Your task to perform on an android device: open app "Booking.com: Hotels and more" (install if not already installed) Image 0: 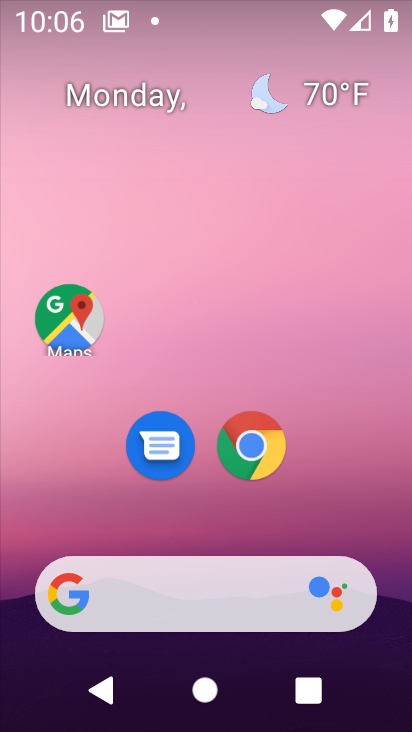
Step 0: drag from (216, 609) to (315, 154)
Your task to perform on an android device: open app "Booking.com: Hotels and more" (install if not already installed) Image 1: 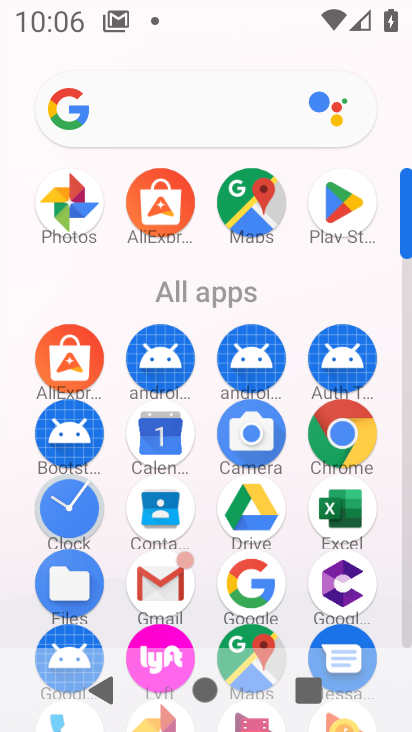
Step 1: click (349, 186)
Your task to perform on an android device: open app "Booking.com: Hotels and more" (install if not already installed) Image 2: 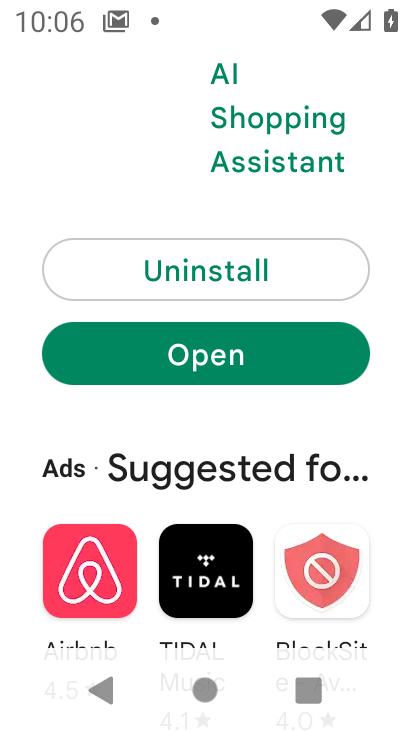
Step 2: drag from (166, 290) to (186, 723)
Your task to perform on an android device: open app "Booking.com: Hotels and more" (install if not already installed) Image 3: 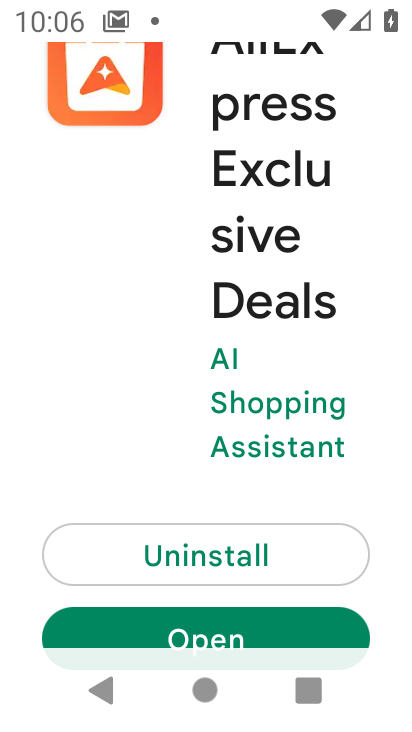
Step 3: drag from (110, 222) to (125, 723)
Your task to perform on an android device: open app "Booking.com: Hotels and more" (install if not already installed) Image 4: 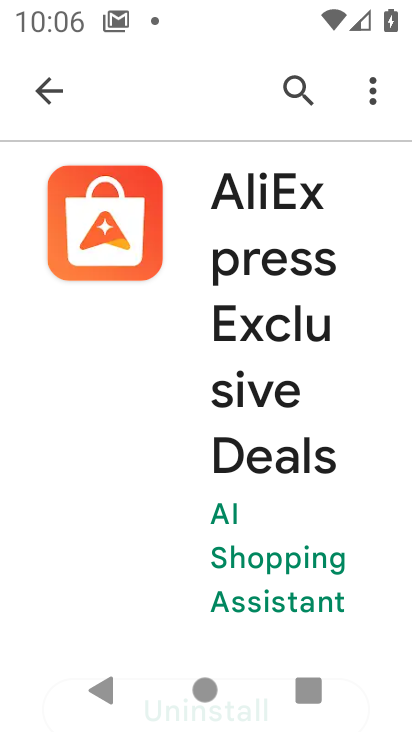
Step 4: click (55, 100)
Your task to perform on an android device: open app "Booking.com: Hotels and more" (install if not already installed) Image 5: 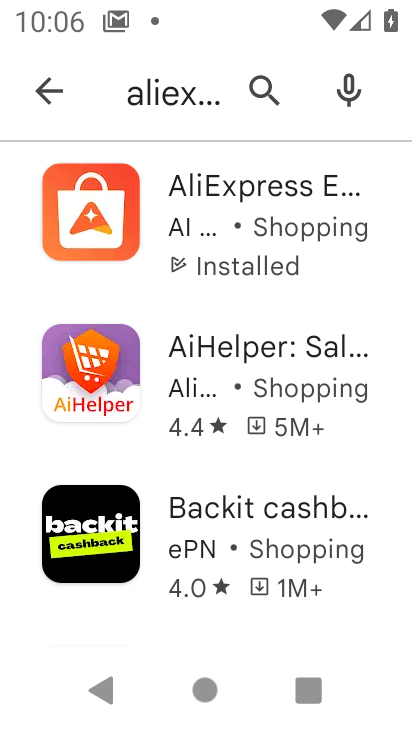
Step 5: click (53, 94)
Your task to perform on an android device: open app "Booking.com: Hotels and more" (install if not already installed) Image 6: 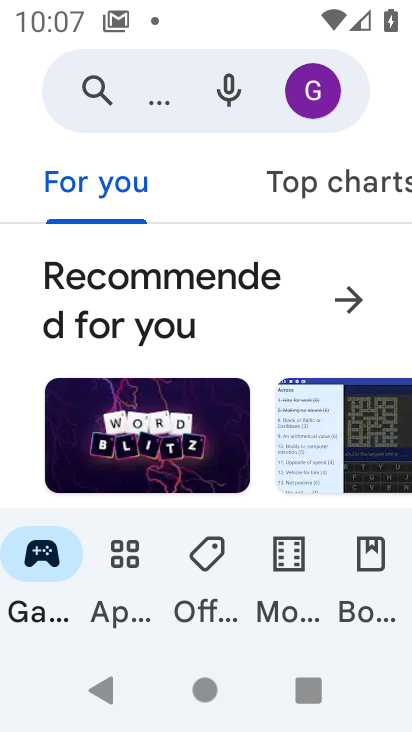
Step 6: click (80, 95)
Your task to perform on an android device: open app "Booking.com: Hotels and more" (install if not already installed) Image 7: 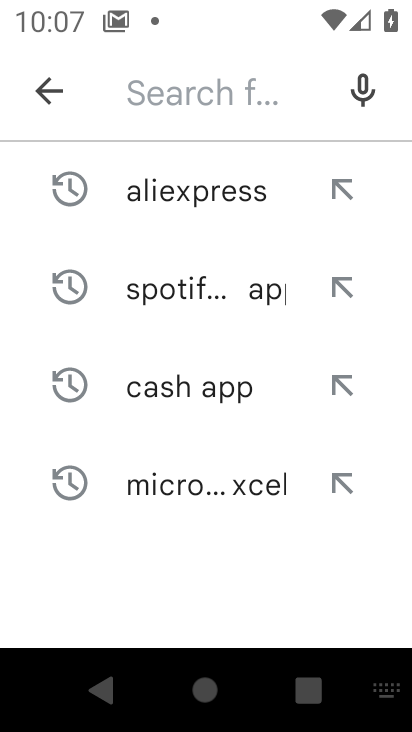
Step 7: type "Booking.com: Hotels and more"
Your task to perform on an android device: open app "Booking.com: Hotels and more" (install if not already installed) Image 8: 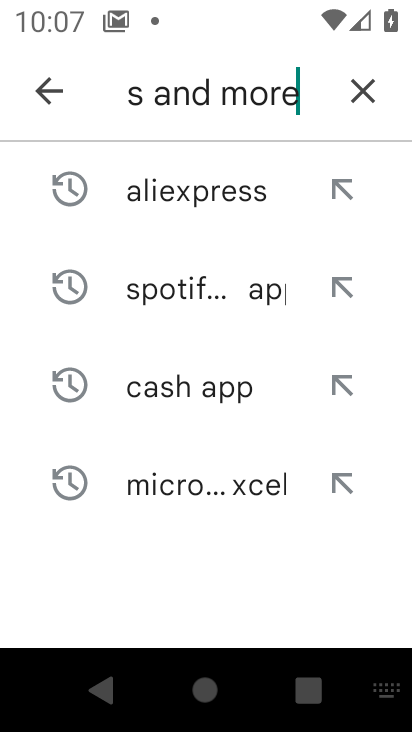
Step 8: type ""
Your task to perform on an android device: open app "Booking.com: Hotels and more" (install if not already installed) Image 9: 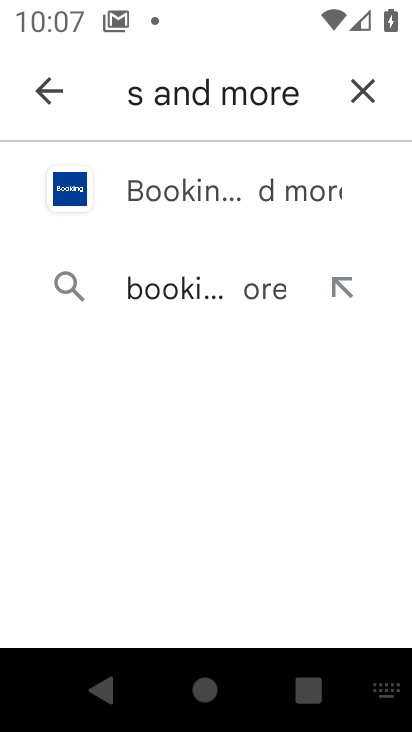
Step 9: click (212, 190)
Your task to perform on an android device: open app "Booking.com: Hotels and more" (install if not already installed) Image 10: 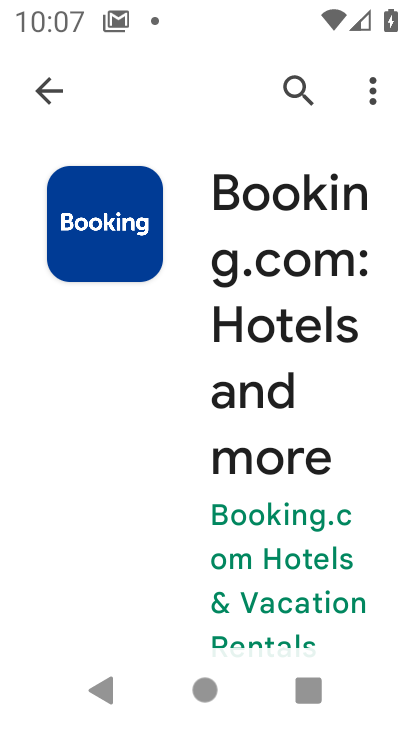
Step 10: drag from (237, 472) to (113, 155)
Your task to perform on an android device: open app "Booking.com: Hotels and more" (install if not already installed) Image 11: 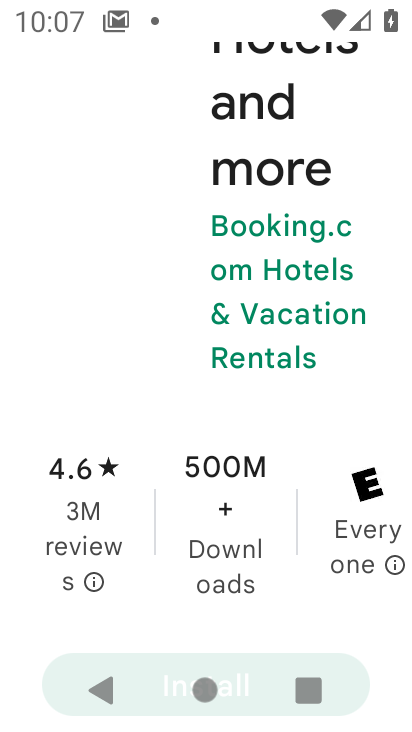
Step 11: drag from (235, 488) to (237, 141)
Your task to perform on an android device: open app "Booking.com: Hotels and more" (install if not already installed) Image 12: 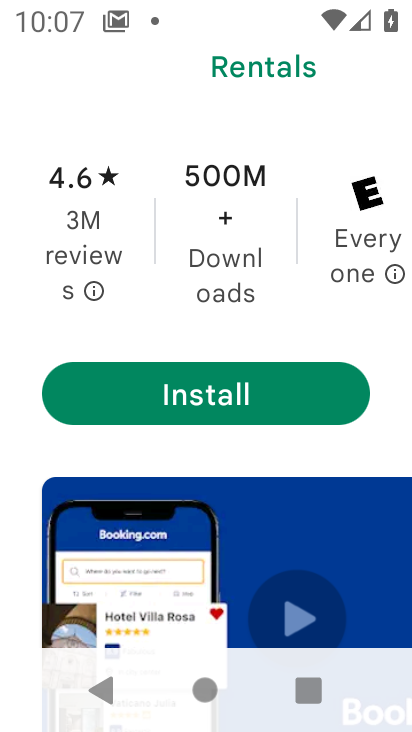
Step 12: click (257, 391)
Your task to perform on an android device: open app "Booking.com: Hotels and more" (install if not already installed) Image 13: 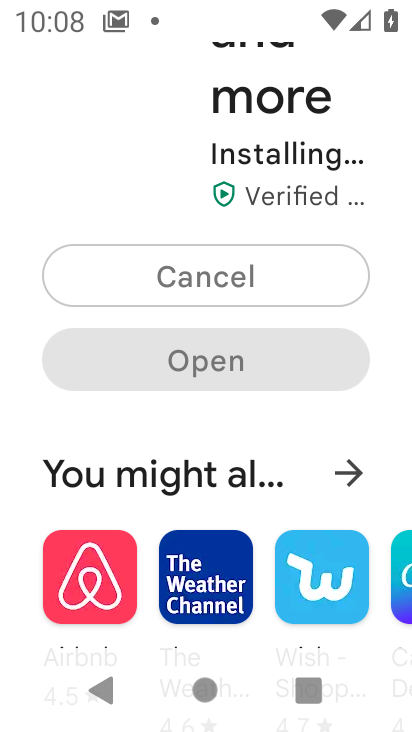
Step 13: drag from (220, 358) to (212, 695)
Your task to perform on an android device: open app "Booking.com: Hotels and more" (install if not already installed) Image 14: 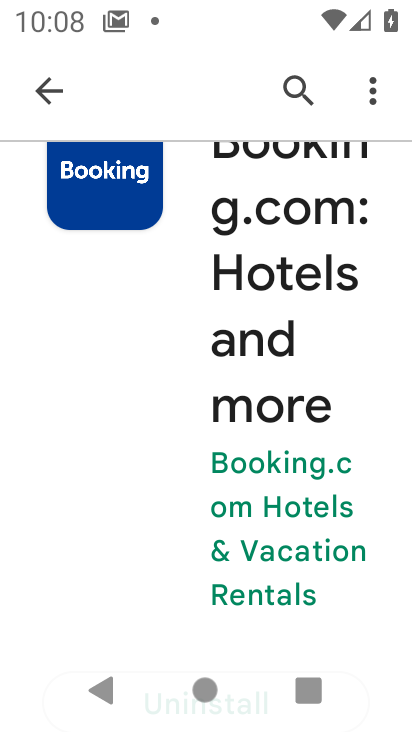
Step 14: drag from (233, 466) to (242, 125)
Your task to perform on an android device: open app "Booking.com: Hotels and more" (install if not already installed) Image 15: 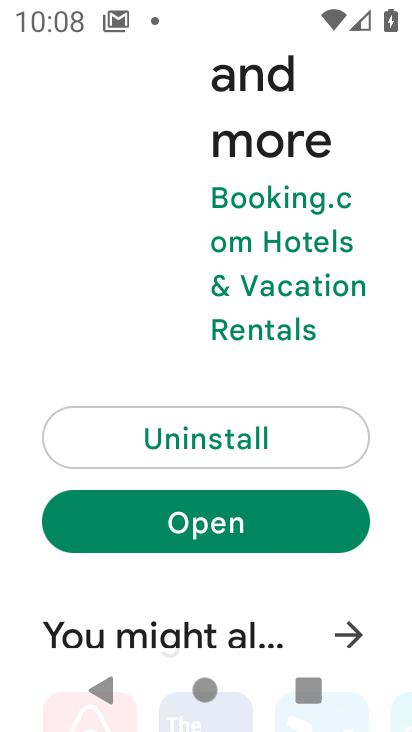
Step 15: click (235, 527)
Your task to perform on an android device: open app "Booking.com: Hotels and more" (install if not already installed) Image 16: 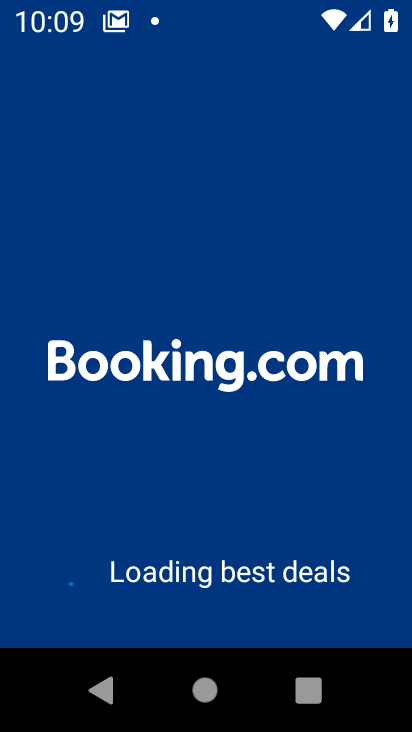
Step 16: task complete